Your task to perform on an android device: change the clock display to digital Image 0: 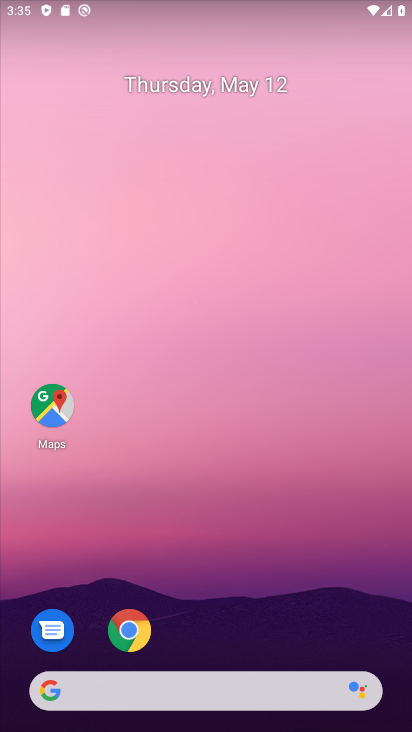
Step 0: drag from (206, 562) to (335, 12)
Your task to perform on an android device: change the clock display to digital Image 1: 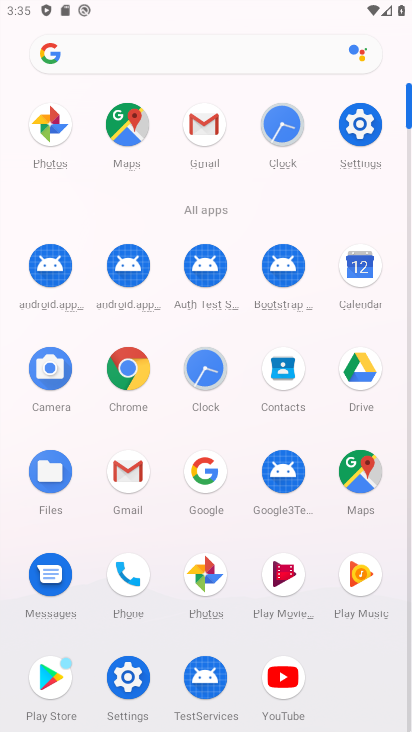
Step 1: click (352, 130)
Your task to perform on an android device: change the clock display to digital Image 2: 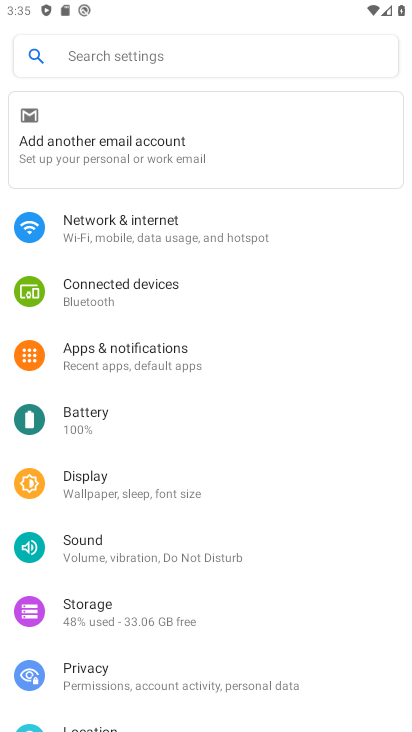
Step 2: click (123, 490)
Your task to perform on an android device: change the clock display to digital Image 3: 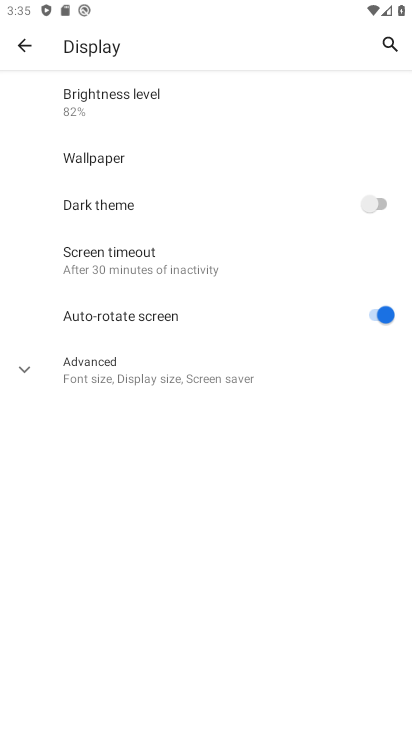
Step 3: click (162, 376)
Your task to perform on an android device: change the clock display to digital Image 4: 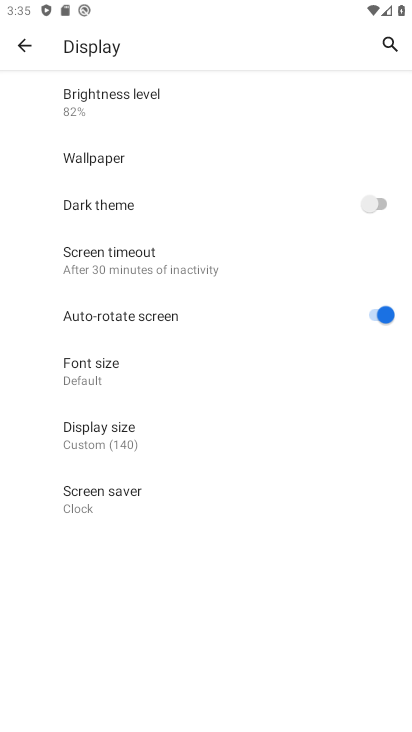
Step 4: click (243, 483)
Your task to perform on an android device: change the clock display to digital Image 5: 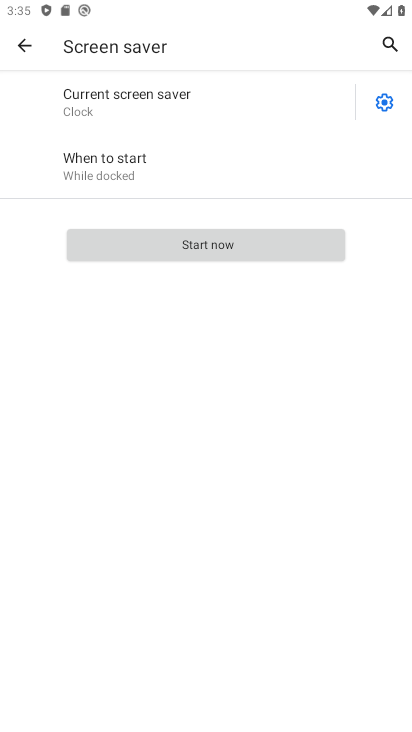
Step 5: click (391, 95)
Your task to perform on an android device: change the clock display to digital Image 6: 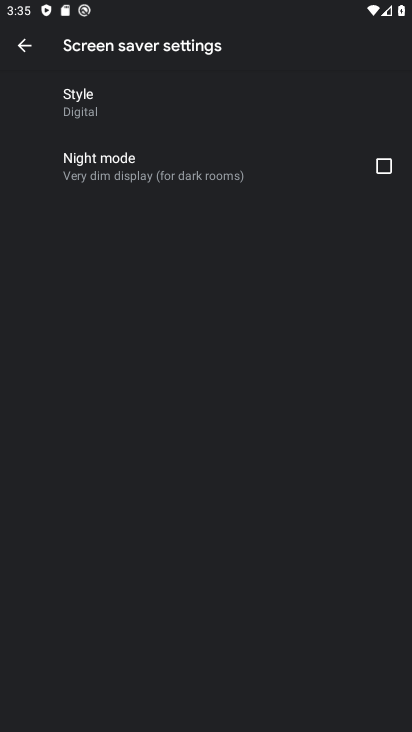
Step 6: click (102, 94)
Your task to perform on an android device: change the clock display to digital Image 7: 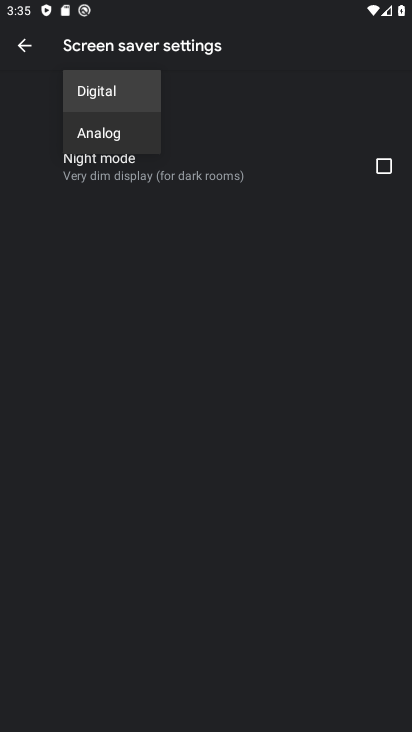
Step 7: task complete